Your task to perform on an android device: Open Chrome and go to settings Image 0: 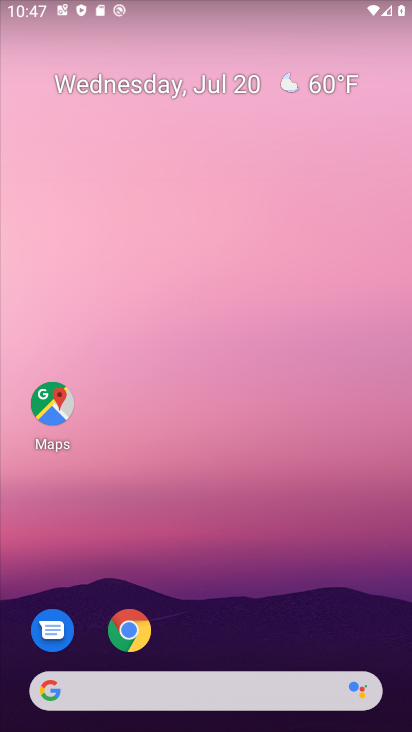
Step 0: click (133, 636)
Your task to perform on an android device: Open Chrome and go to settings Image 1: 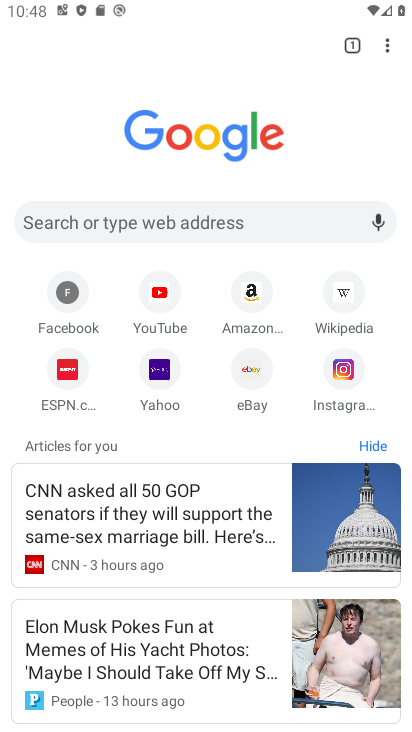
Step 1: click (403, 44)
Your task to perform on an android device: Open Chrome and go to settings Image 2: 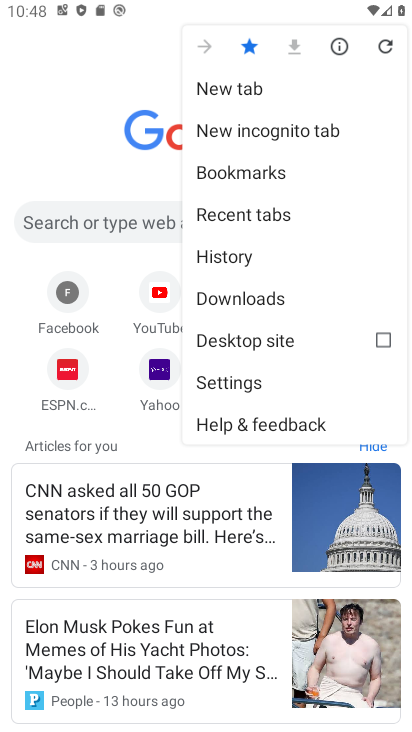
Step 2: click (242, 377)
Your task to perform on an android device: Open Chrome and go to settings Image 3: 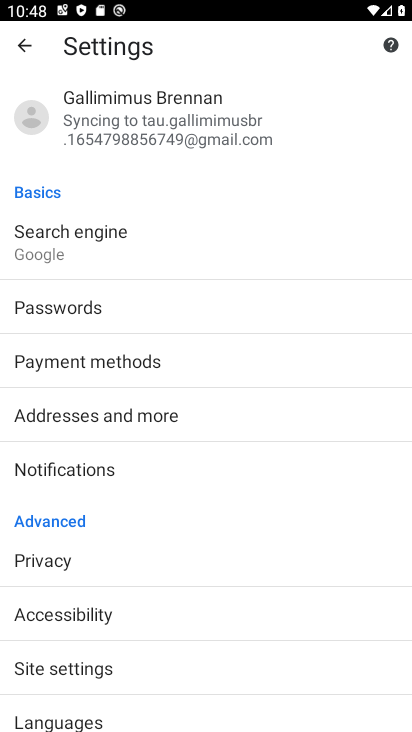
Step 3: task complete